Your task to perform on an android device: find which apps use the phone's location Image 0: 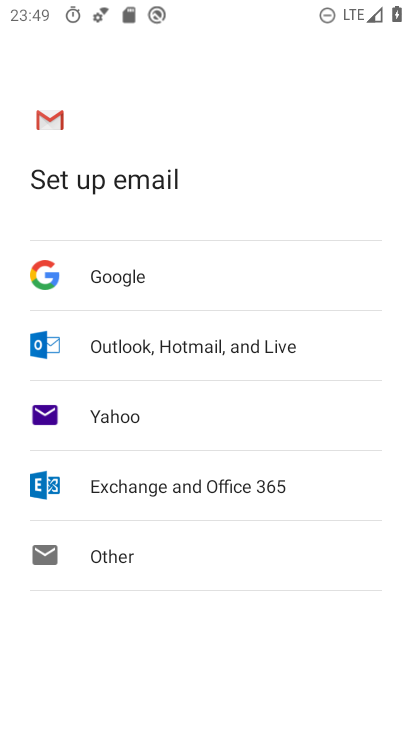
Step 0: press home button
Your task to perform on an android device: find which apps use the phone's location Image 1: 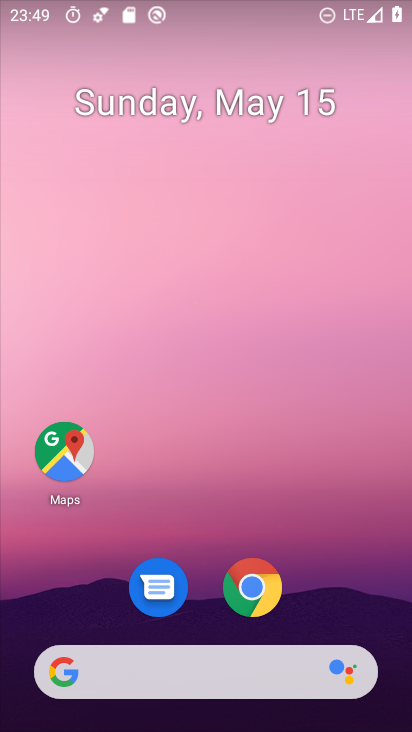
Step 1: drag from (201, 622) to (230, 153)
Your task to perform on an android device: find which apps use the phone's location Image 2: 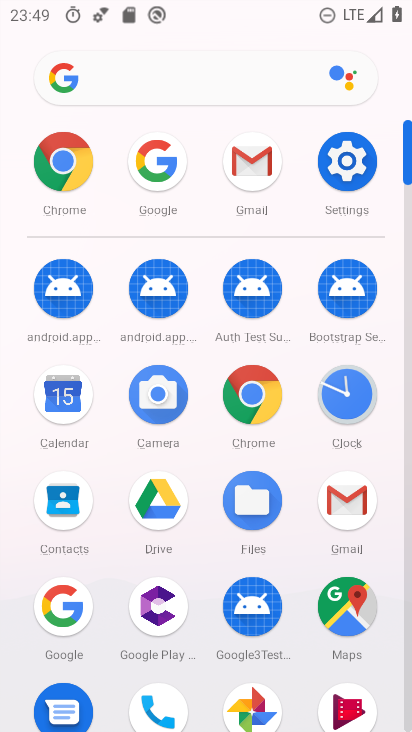
Step 2: click (328, 174)
Your task to perform on an android device: find which apps use the phone's location Image 3: 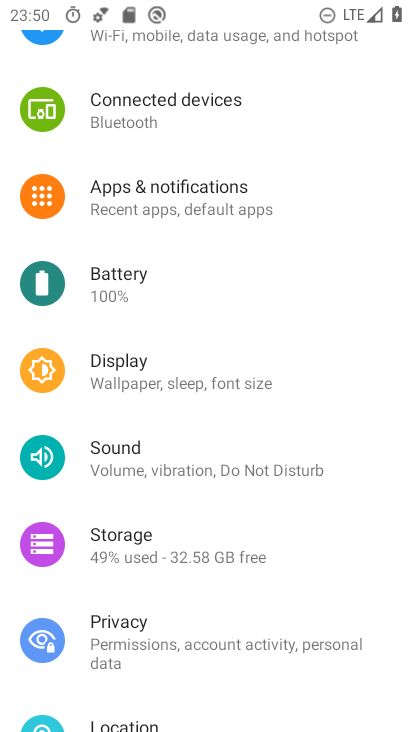
Step 3: drag from (169, 607) to (191, 373)
Your task to perform on an android device: find which apps use the phone's location Image 4: 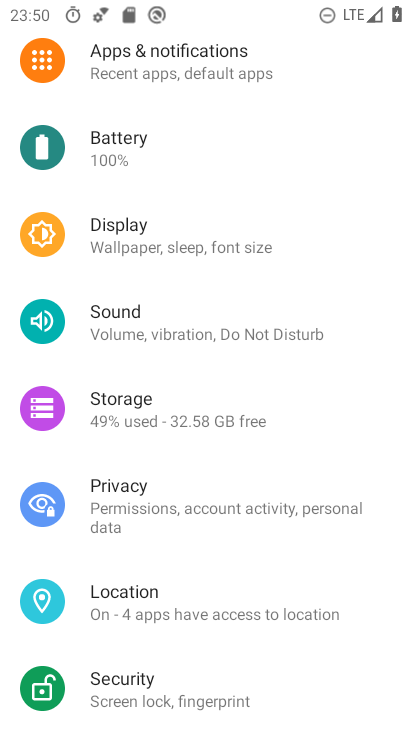
Step 4: click (153, 582)
Your task to perform on an android device: find which apps use the phone's location Image 5: 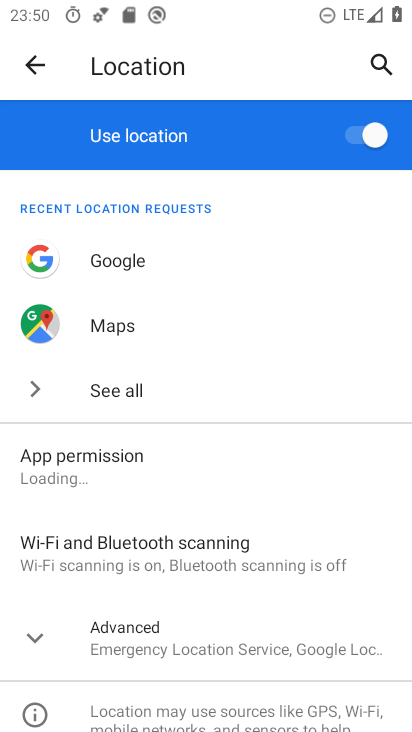
Step 5: drag from (224, 569) to (259, 340)
Your task to perform on an android device: find which apps use the phone's location Image 6: 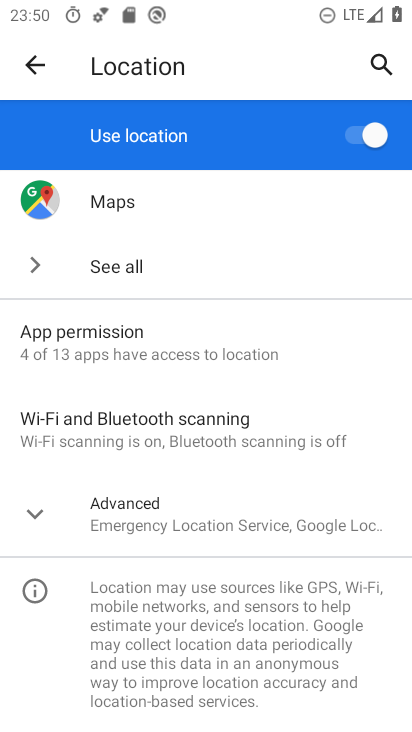
Step 6: click (115, 345)
Your task to perform on an android device: find which apps use the phone's location Image 7: 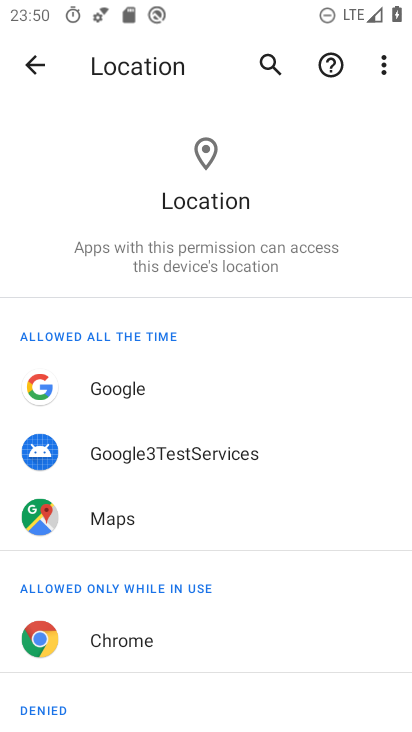
Step 7: task complete